Your task to perform on an android device: turn on javascript in the chrome app Image 0: 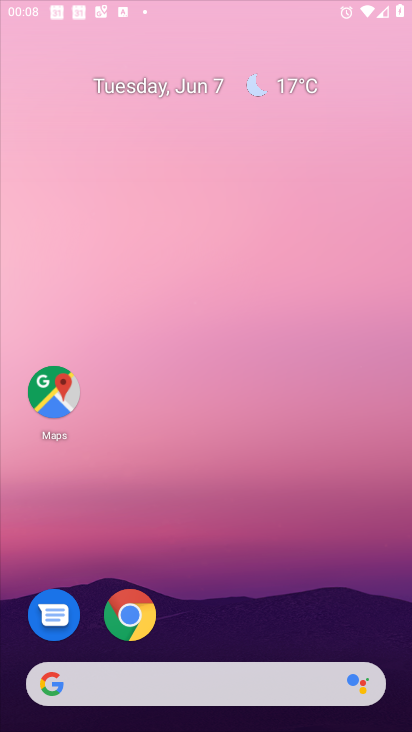
Step 0: click (365, 116)
Your task to perform on an android device: turn on javascript in the chrome app Image 1: 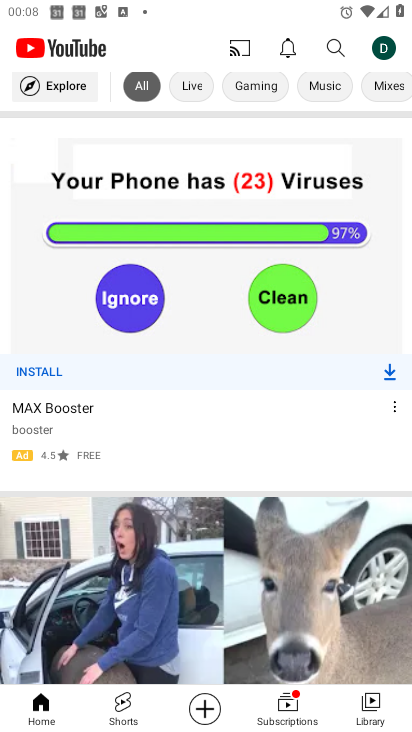
Step 1: press home button
Your task to perform on an android device: turn on javascript in the chrome app Image 2: 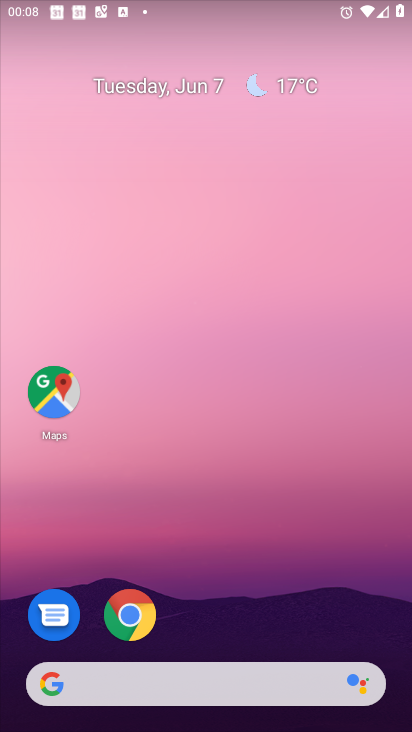
Step 2: click (120, 609)
Your task to perform on an android device: turn on javascript in the chrome app Image 3: 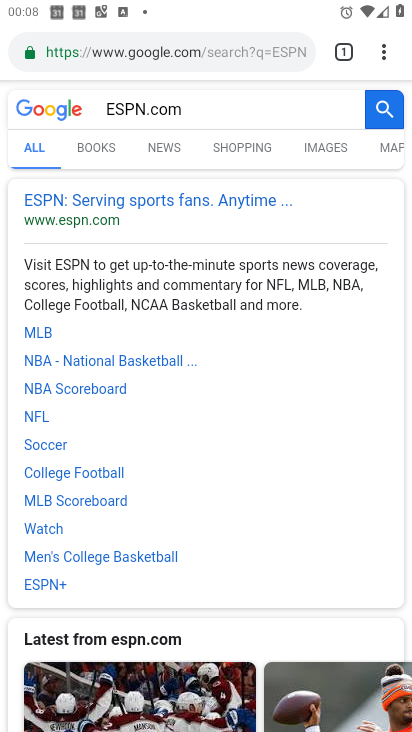
Step 3: click (383, 48)
Your task to perform on an android device: turn on javascript in the chrome app Image 4: 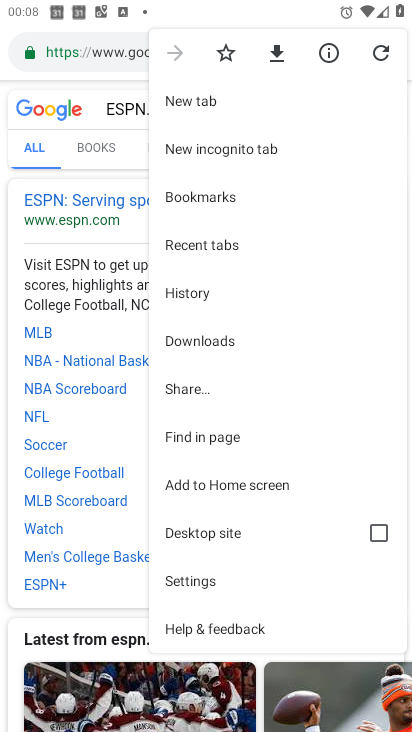
Step 4: click (189, 577)
Your task to perform on an android device: turn on javascript in the chrome app Image 5: 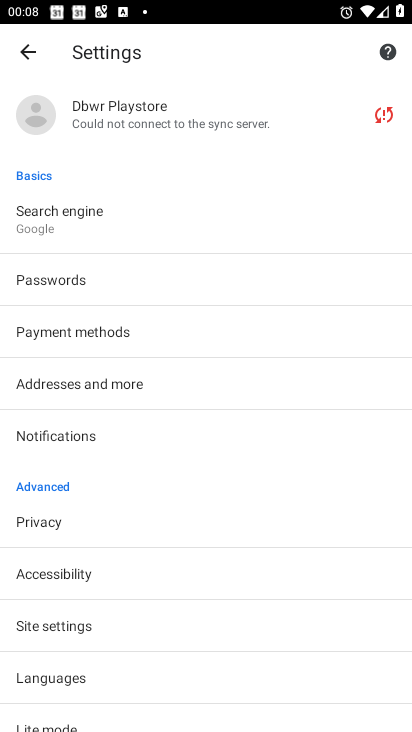
Step 5: click (98, 626)
Your task to perform on an android device: turn on javascript in the chrome app Image 6: 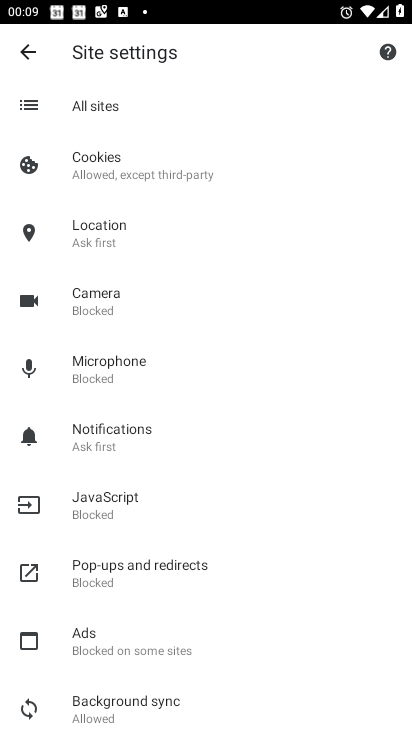
Step 6: click (106, 501)
Your task to perform on an android device: turn on javascript in the chrome app Image 7: 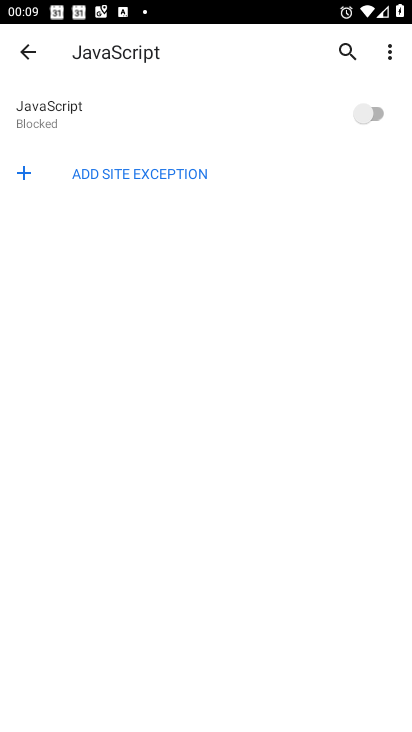
Step 7: click (378, 117)
Your task to perform on an android device: turn on javascript in the chrome app Image 8: 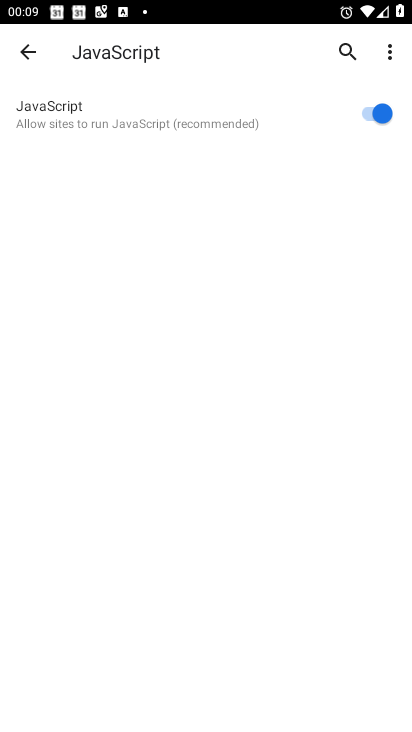
Step 8: task complete